Your task to perform on an android device: Open settings on Google Maps Image 0: 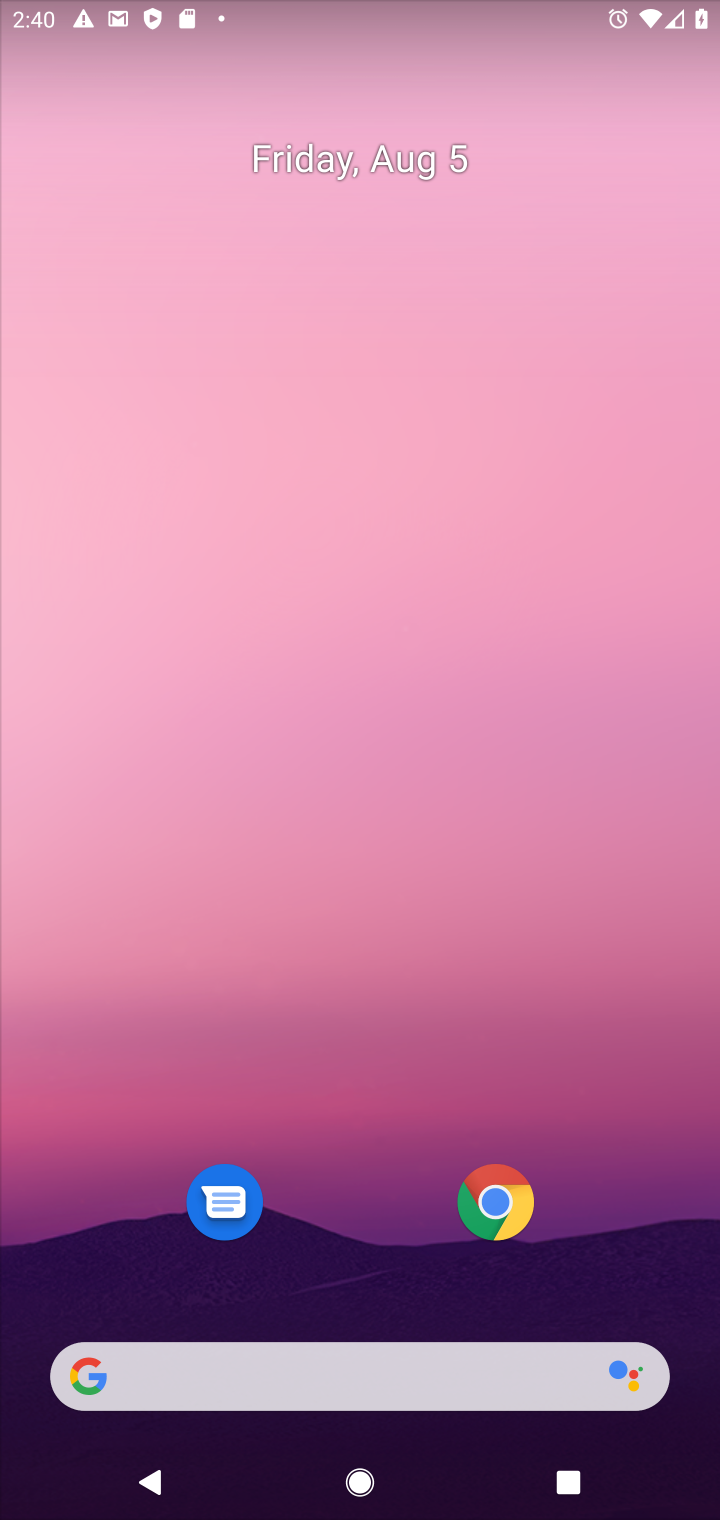
Step 0: drag from (356, 1132) to (288, 139)
Your task to perform on an android device: Open settings on Google Maps Image 1: 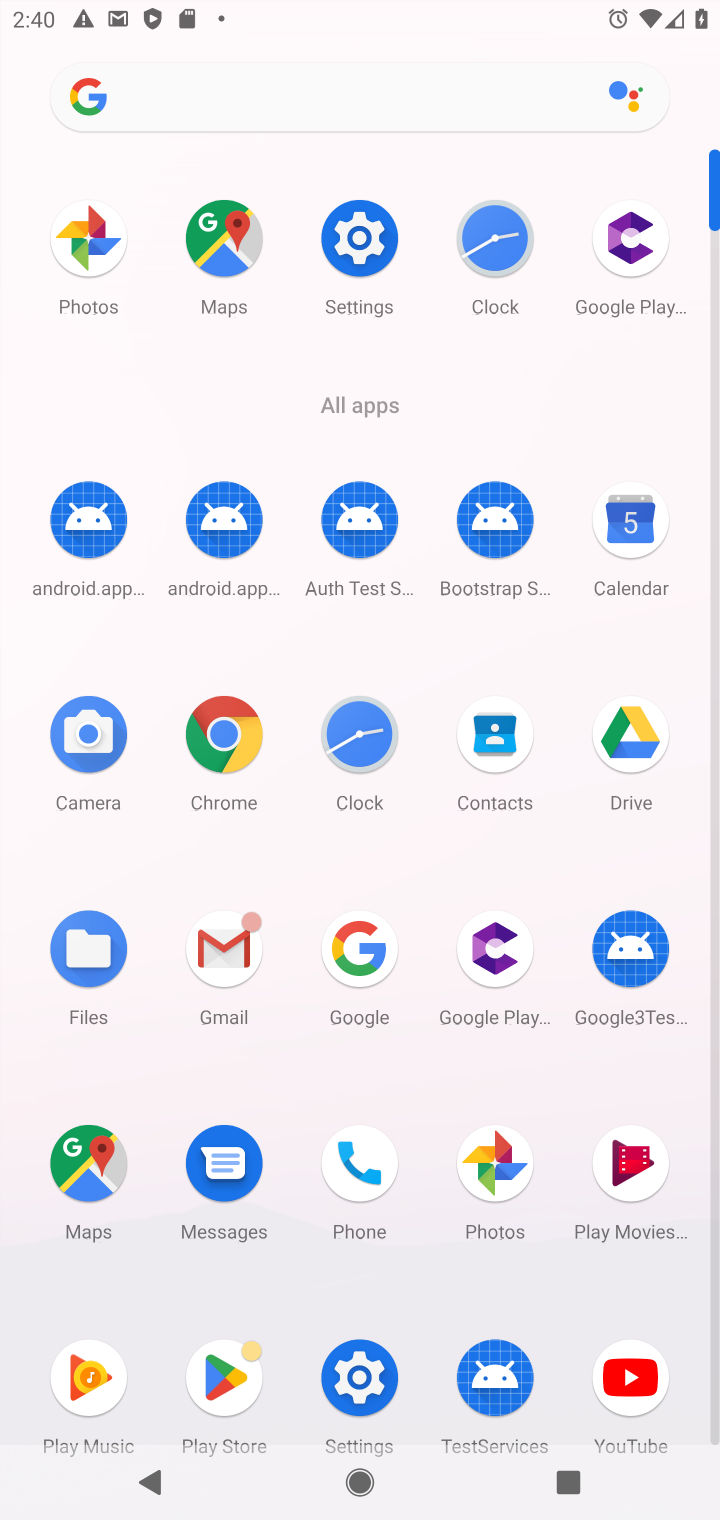
Step 1: click (72, 1168)
Your task to perform on an android device: Open settings on Google Maps Image 2: 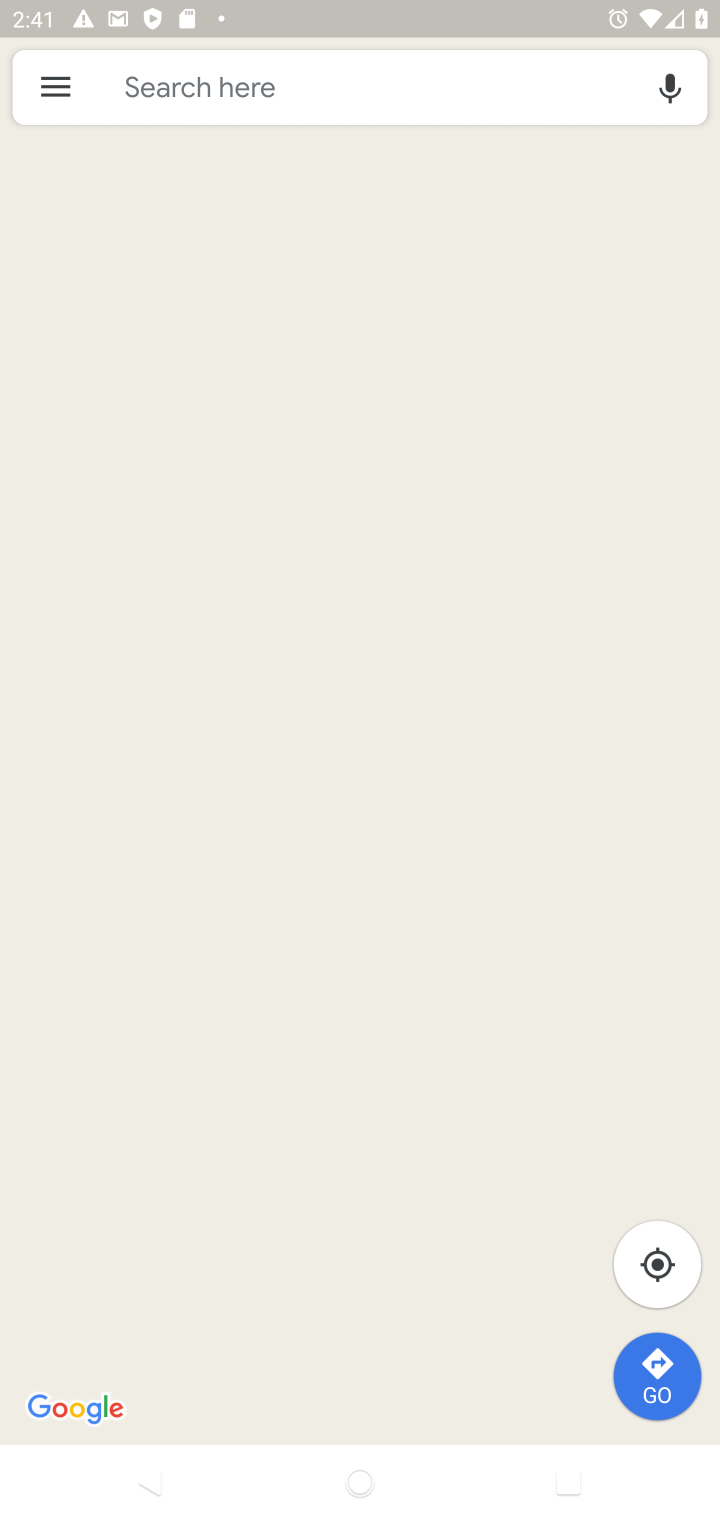
Step 2: click (45, 90)
Your task to perform on an android device: Open settings on Google Maps Image 3: 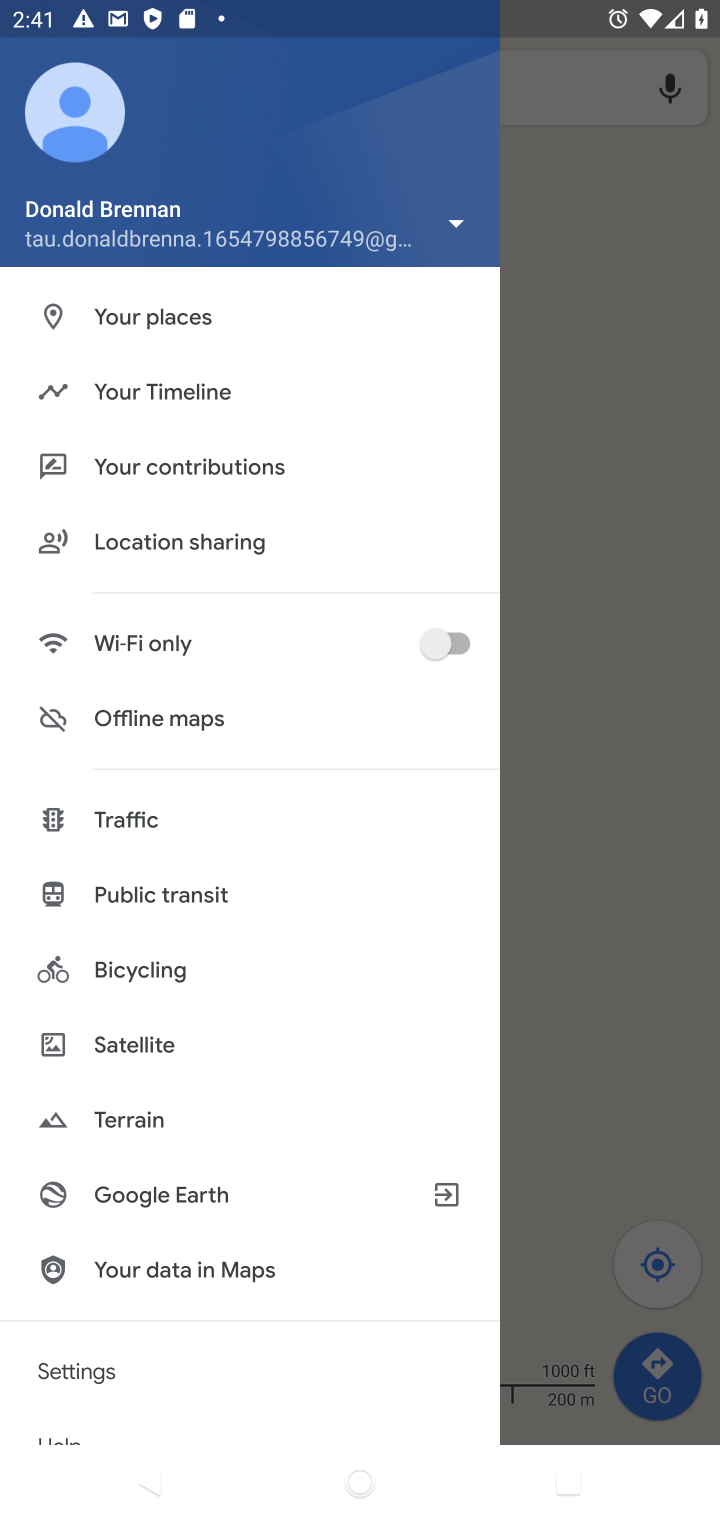
Step 3: click (74, 1369)
Your task to perform on an android device: Open settings on Google Maps Image 4: 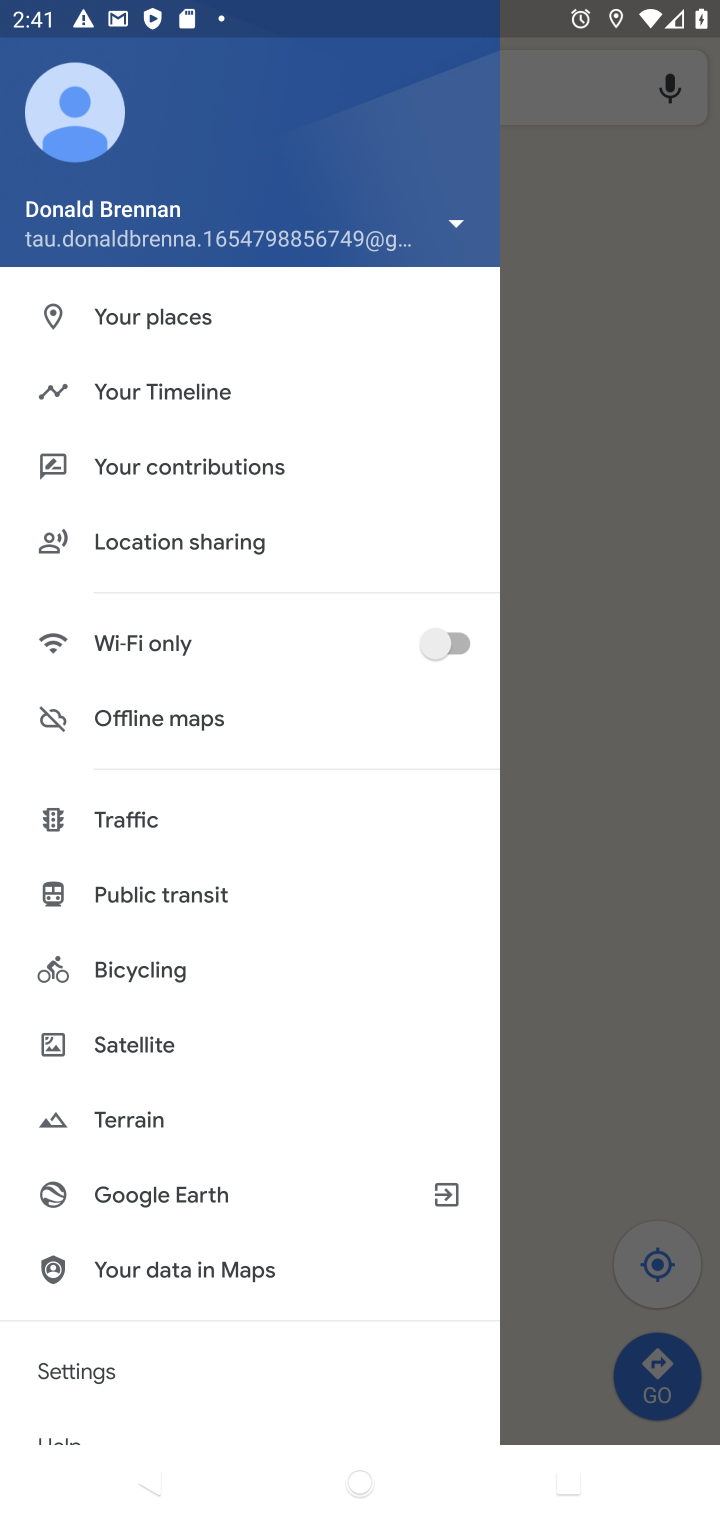
Step 4: click (85, 1374)
Your task to perform on an android device: Open settings on Google Maps Image 5: 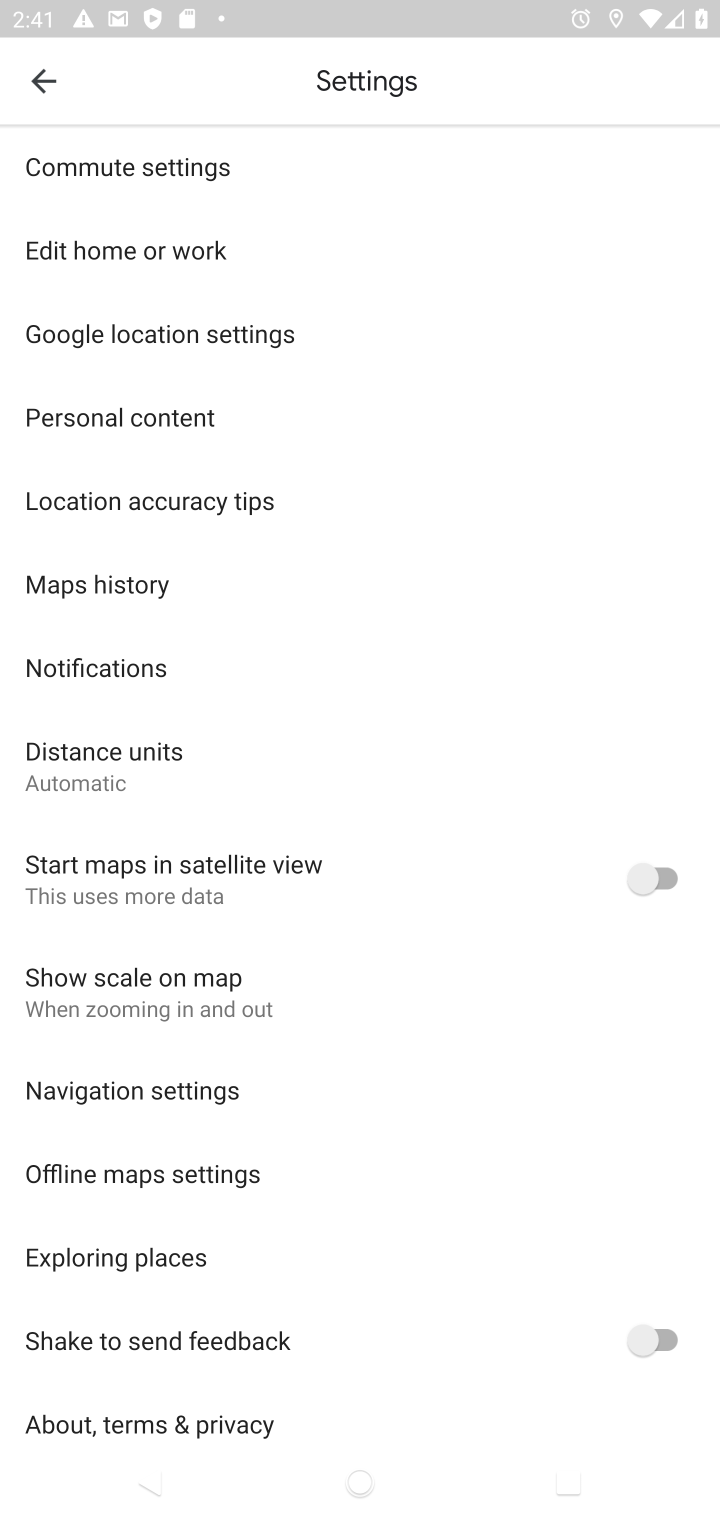
Step 5: task complete